Your task to perform on an android device: Go to settings Image 0: 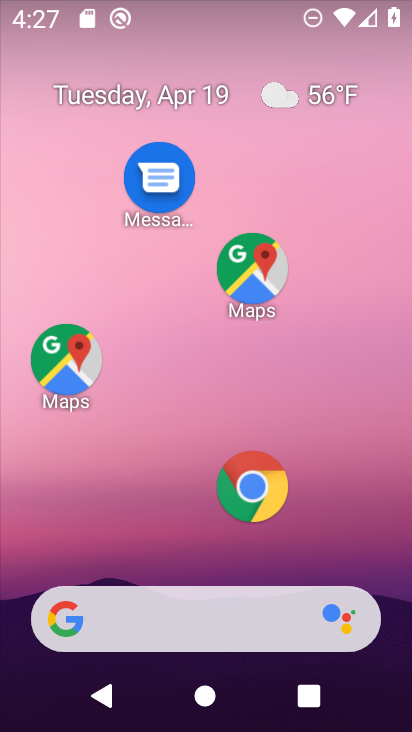
Step 0: drag from (238, 547) to (294, 191)
Your task to perform on an android device: Go to settings Image 1: 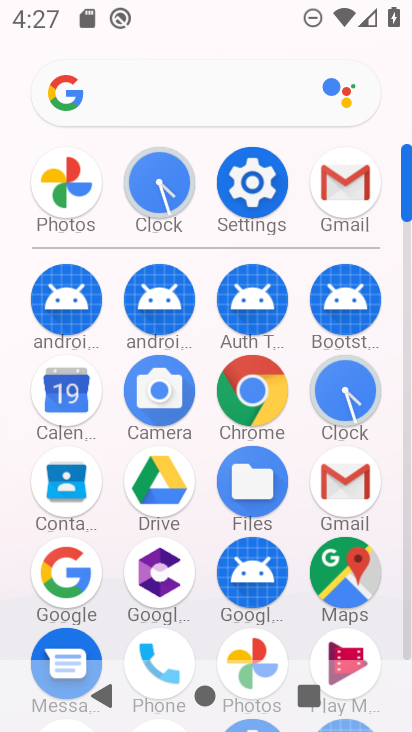
Step 1: click (240, 192)
Your task to perform on an android device: Go to settings Image 2: 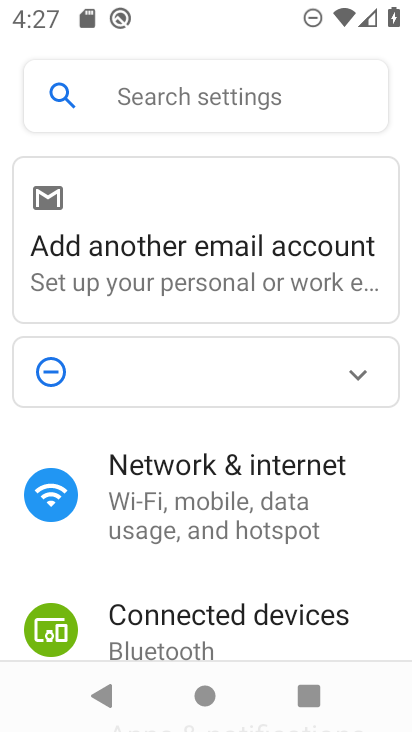
Step 2: task complete